Your task to perform on an android device: change your default location settings in chrome Image 0: 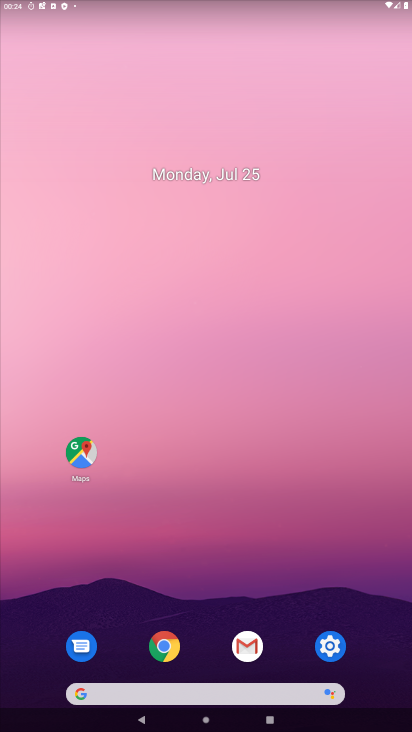
Step 0: click (165, 640)
Your task to perform on an android device: change your default location settings in chrome Image 1: 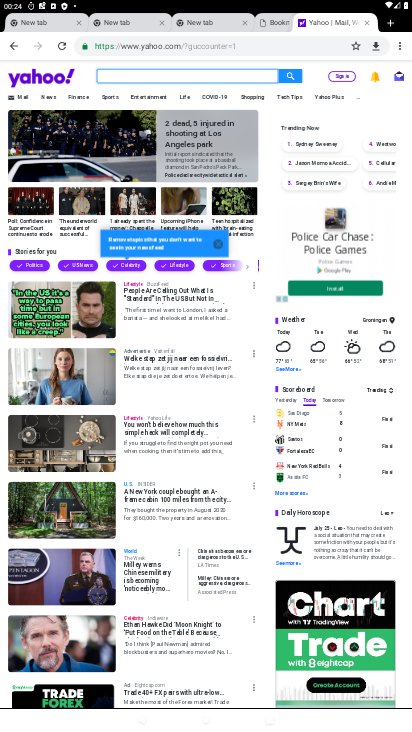
Step 1: click (401, 48)
Your task to perform on an android device: change your default location settings in chrome Image 2: 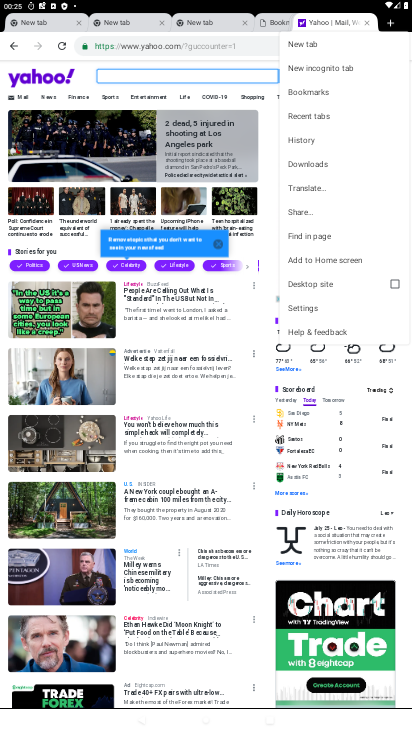
Step 2: click (298, 306)
Your task to perform on an android device: change your default location settings in chrome Image 3: 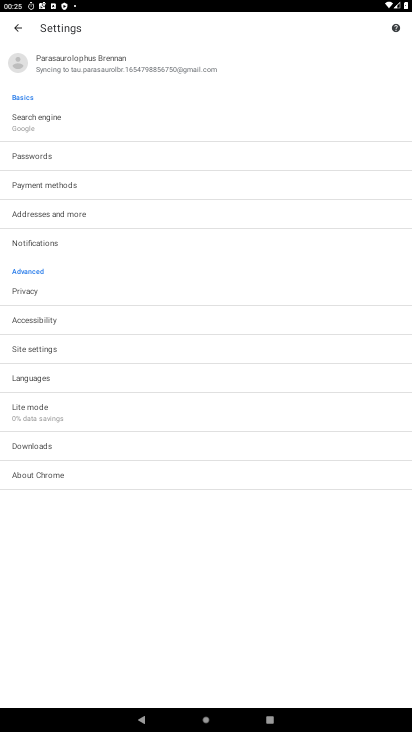
Step 3: click (19, 347)
Your task to perform on an android device: change your default location settings in chrome Image 4: 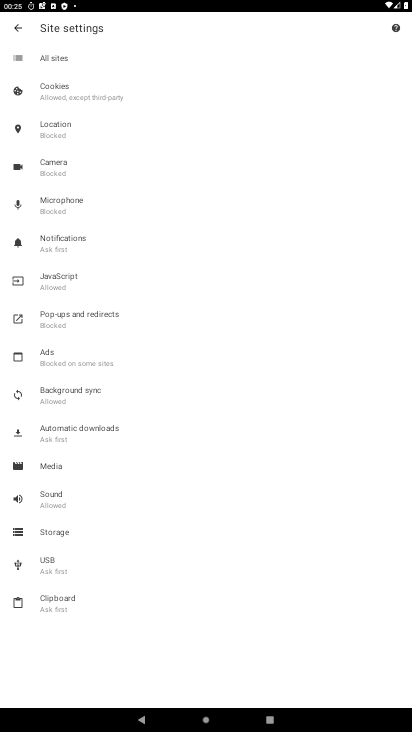
Step 4: click (78, 129)
Your task to perform on an android device: change your default location settings in chrome Image 5: 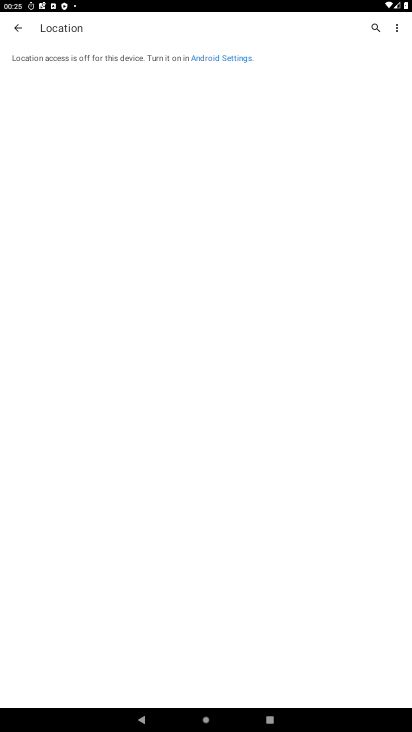
Step 5: task complete